Your task to perform on an android device: Add usb-b to the cart on target Image 0: 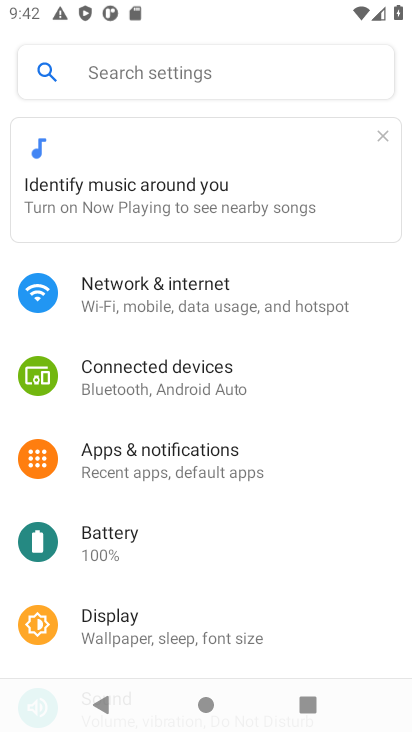
Step 0: press home button
Your task to perform on an android device: Add usb-b to the cart on target Image 1: 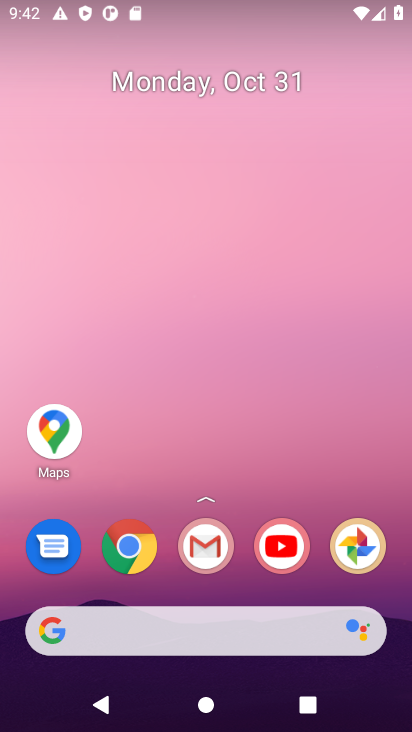
Step 1: click (132, 554)
Your task to perform on an android device: Add usb-b to the cart on target Image 2: 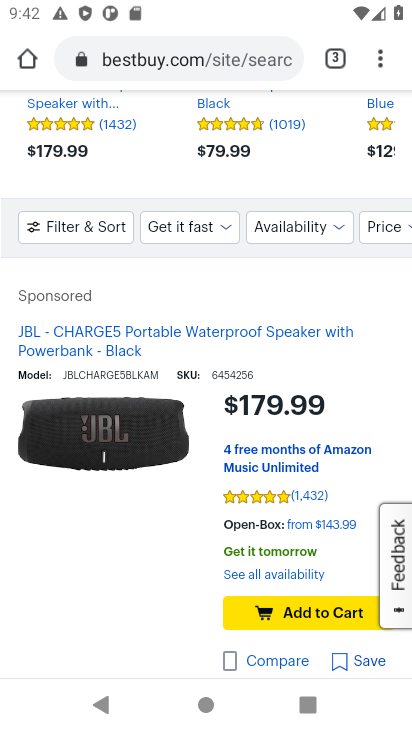
Step 2: click (138, 63)
Your task to perform on an android device: Add usb-b to the cart on target Image 3: 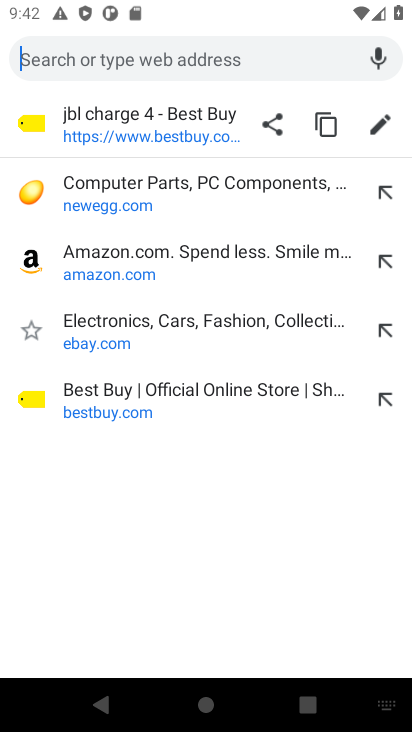
Step 3: type "target"
Your task to perform on an android device: Add usb-b to the cart on target Image 4: 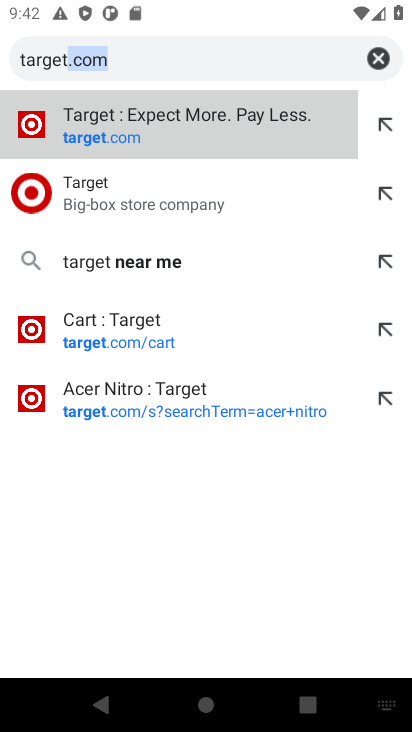
Step 4: press enter
Your task to perform on an android device: Add usb-b to the cart on target Image 5: 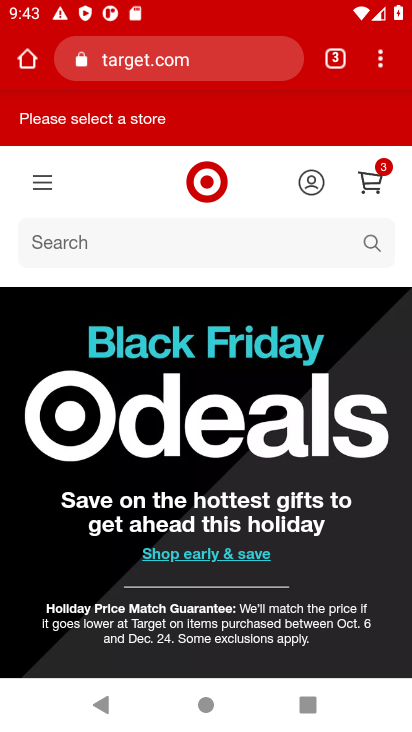
Step 5: click (295, 237)
Your task to perform on an android device: Add usb-b to the cart on target Image 6: 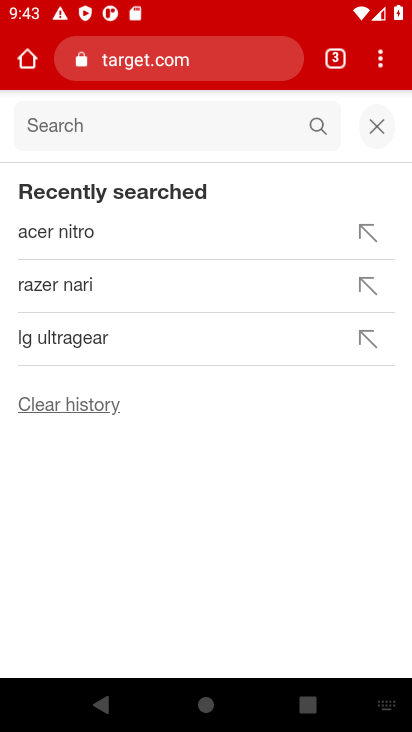
Step 6: type "usb-b"
Your task to perform on an android device: Add usb-b to the cart on target Image 7: 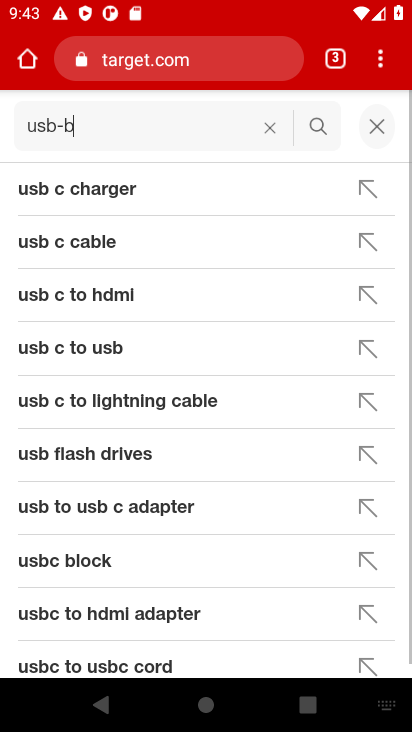
Step 7: press enter
Your task to perform on an android device: Add usb-b to the cart on target Image 8: 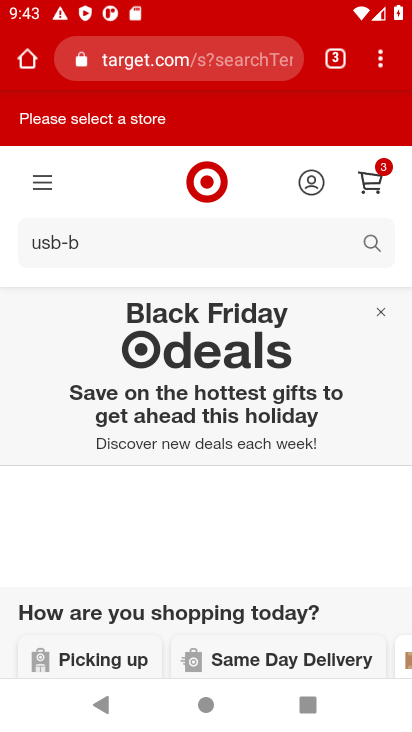
Step 8: drag from (256, 573) to (273, 266)
Your task to perform on an android device: Add usb-b to the cart on target Image 9: 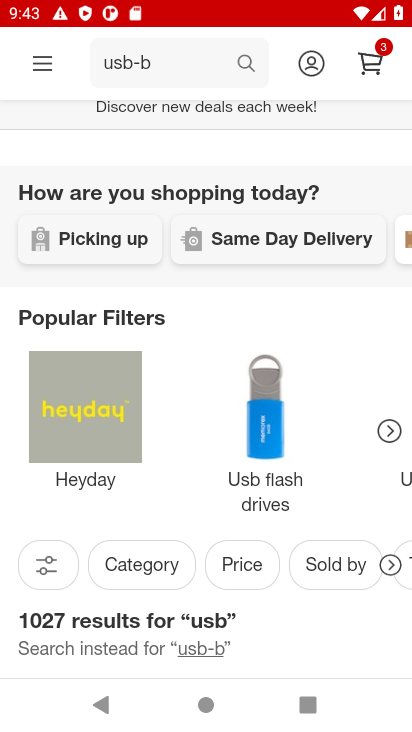
Step 9: drag from (252, 633) to (280, 306)
Your task to perform on an android device: Add usb-b to the cart on target Image 10: 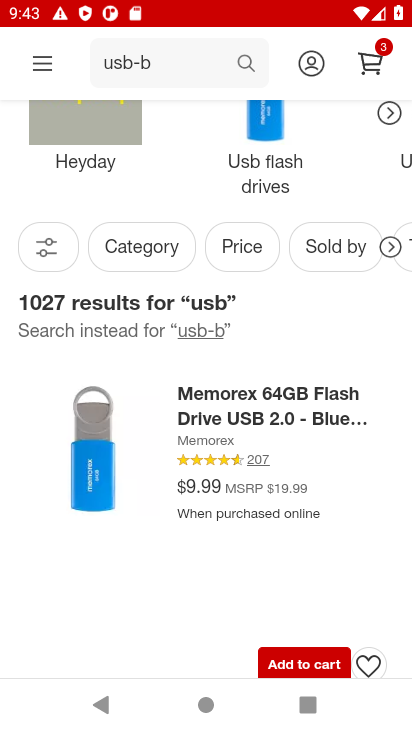
Step 10: click (304, 660)
Your task to perform on an android device: Add usb-b to the cart on target Image 11: 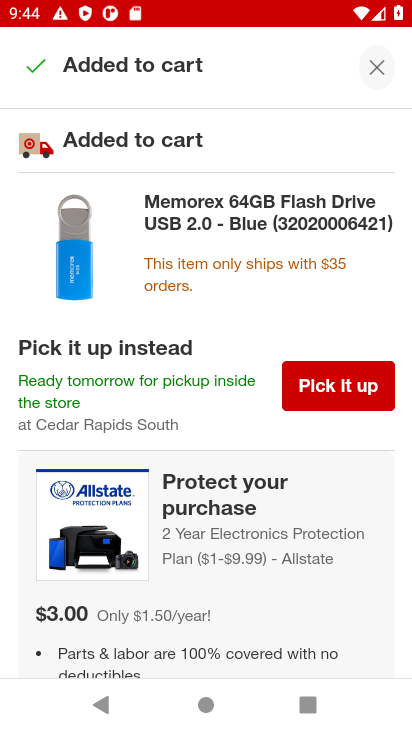
Step 11: task complete